Your task to perform on an android device: Is it going to rain tomorrow? Image 0: 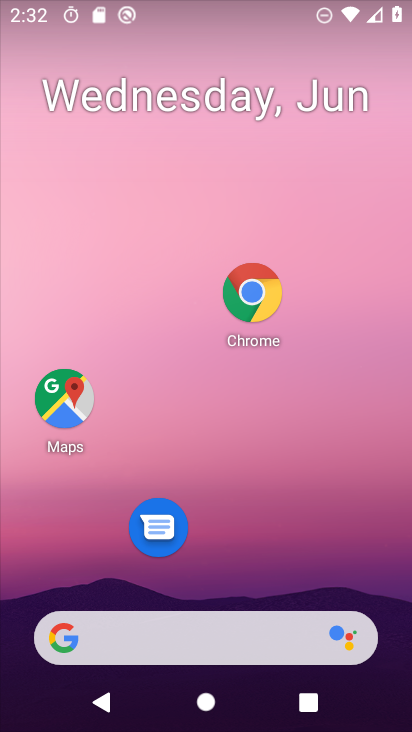
Step 0: drag from (248, 507) to (281, 167)
Your task to perform on an android device: Is it going to rain tomorrow? Image 1: 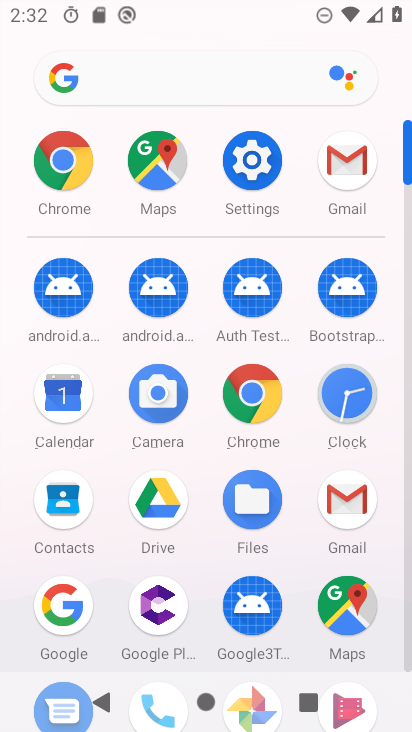
Step 1: click (62, 610)
Your task to perform on an android device: Is it going to rain tomorrow? Image 2: 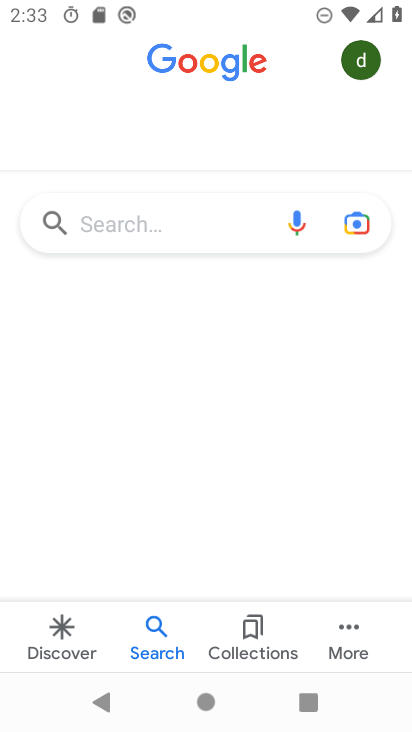
Step 2: click (180, 227)
Your task to perform on an android device: Is it going to rain tomorrow? Image 3: 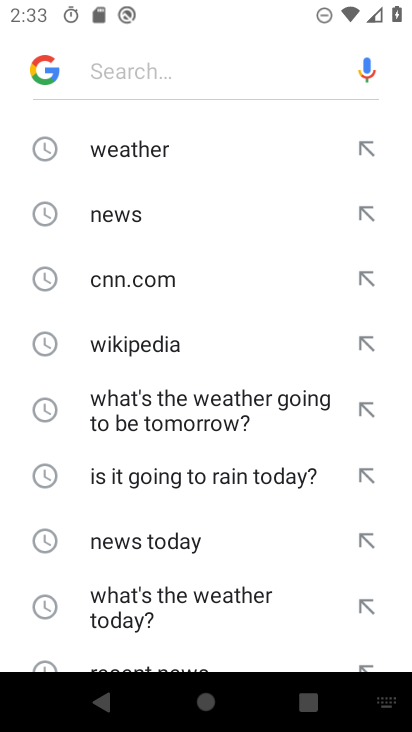
Step 3: click (174, 152)
Your task to perform on an android device: Is it going to rain tomorrow? Image 4: 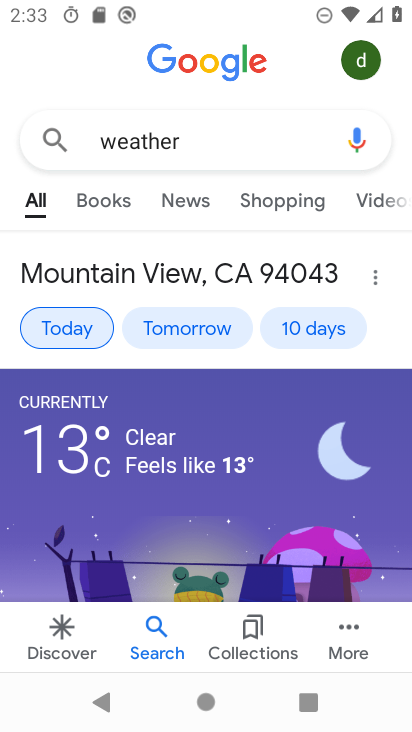
Step 4: click (173, 330)
Your task to perform on an android device: Is it going to rain tomorrow? Image 5: 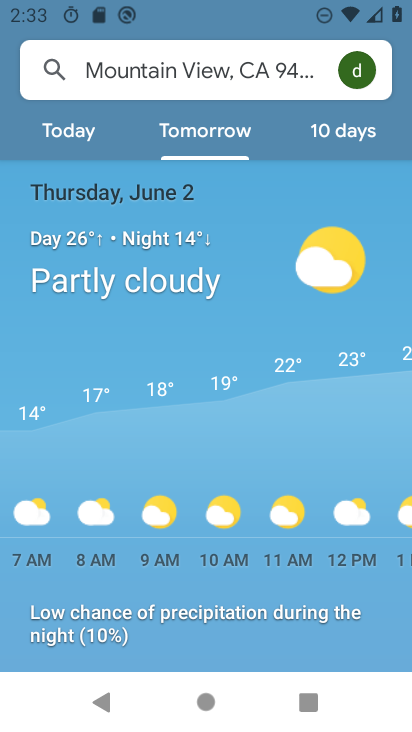
Step 5: task complete